Your task to perform on an android device: make emails show in primary in the gmail app Image 0: 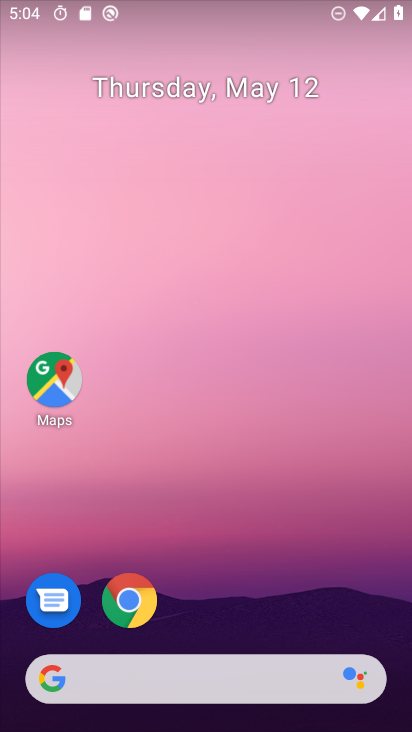
Step 0: drag from (172, 621) to (334, 112)
Your task to perform on an android device: make emails show in primary in the gmail app Image 1: 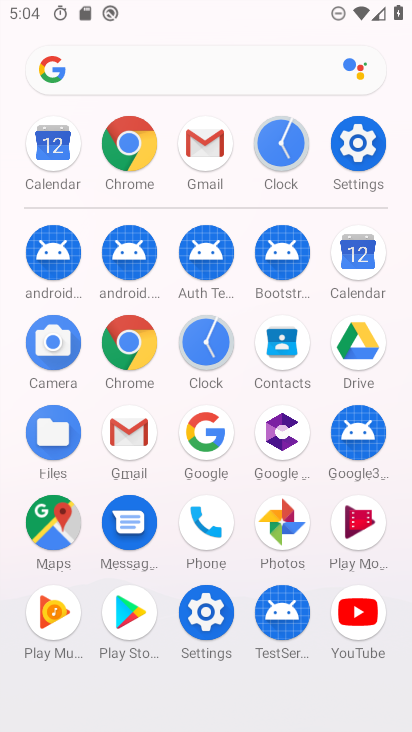
Step 1: click (137, 433)
Your task to perform on an android device: make emails show in primary in the gmail app Image 2: 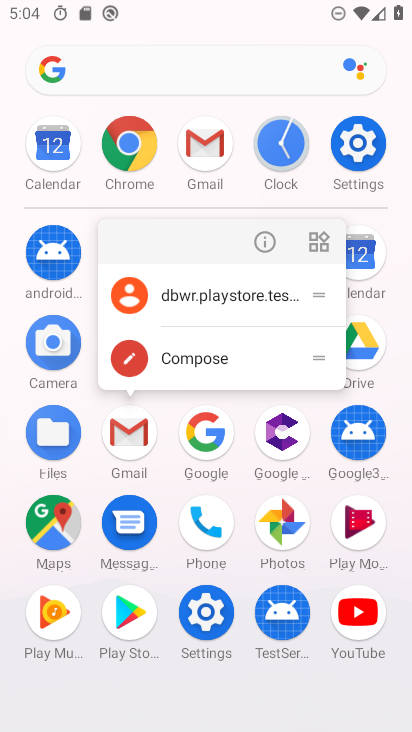
Step 2: click (263, 247)
Your task to perform on an android device: make emails show in primary in the gmail app Image 3: 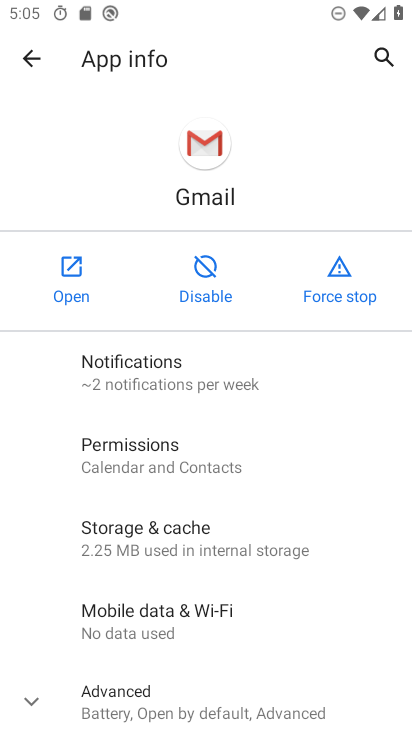
Step 3: click (79, 302)
Your task to perform on an android device: make emails show in primary in the gmail app Image 4: 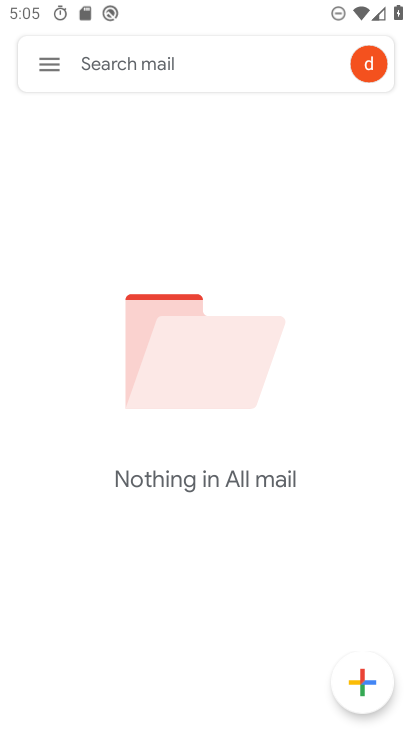
Step 4: click (42, 63)
Your task to perform on an android device: make emails show in primary in the gmail app Image 5: 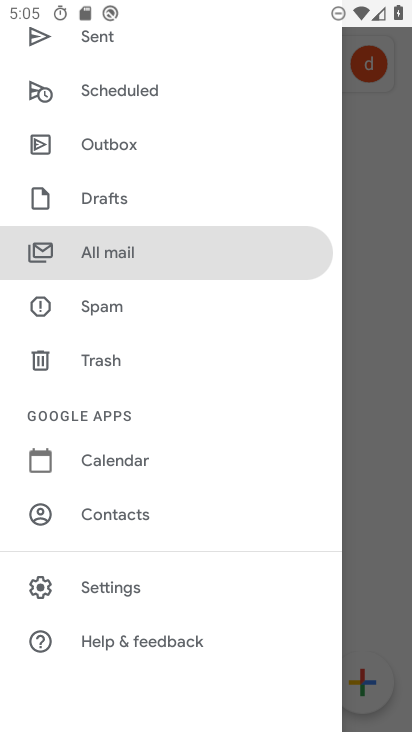
Step 5: drag from (117, 204) to (224, 706)
Your task to perform on an android device: make emails show in primary in the gmail app Image 6: 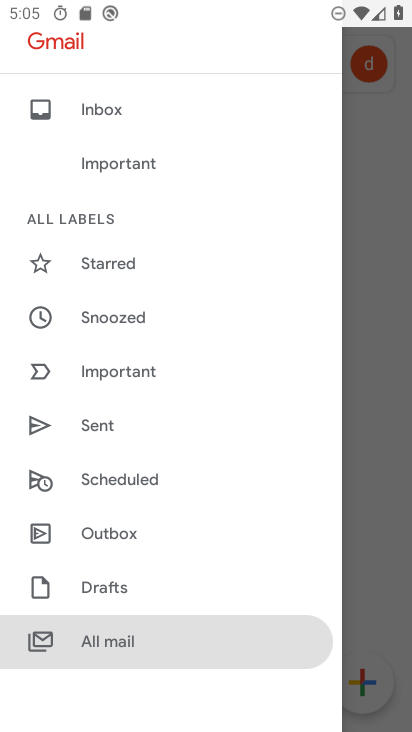
Step 6: click (128, 130)
Your task to perform on an android device: make emails show in primary in the gmail app Image 7: 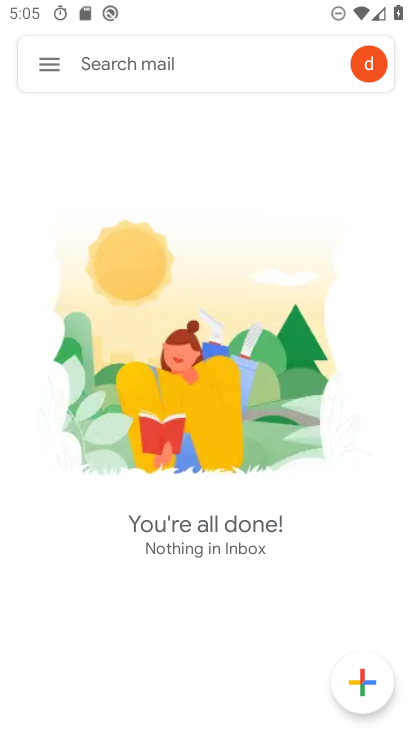
Step 7: drag from (273, 192) to (325, 566)
Your task to perform on an android device: make emails show in primary in the gmail app Image 8: 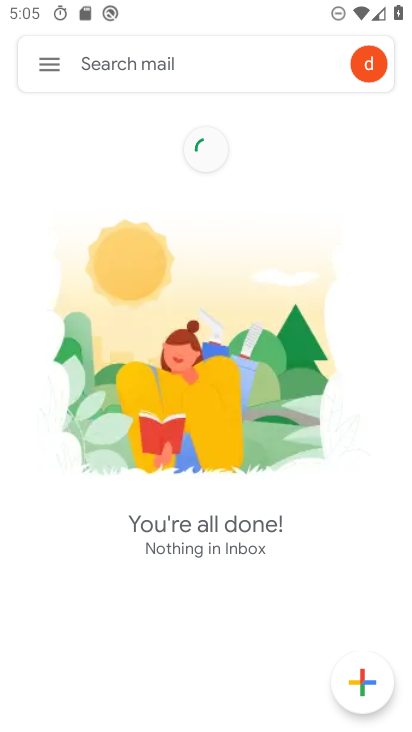
Step 8: click (169, 528)
Your task to perform on an android device: make emails show in primary in the gmail app Image 9: 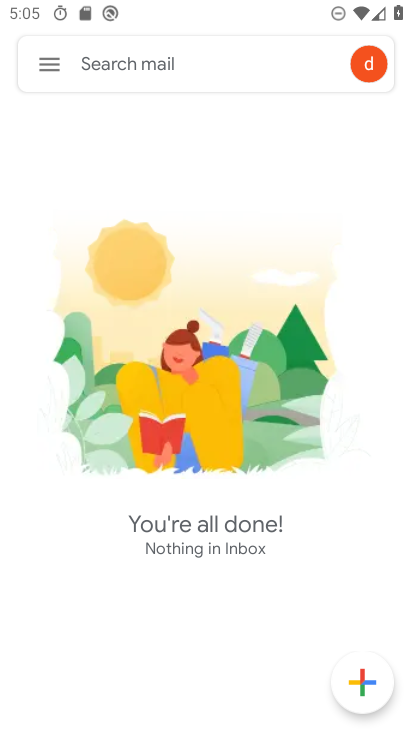
Step 9: task complete